Your task to perform on an android device: Open the Play Movies app and select the watchlist tab. Image 0: 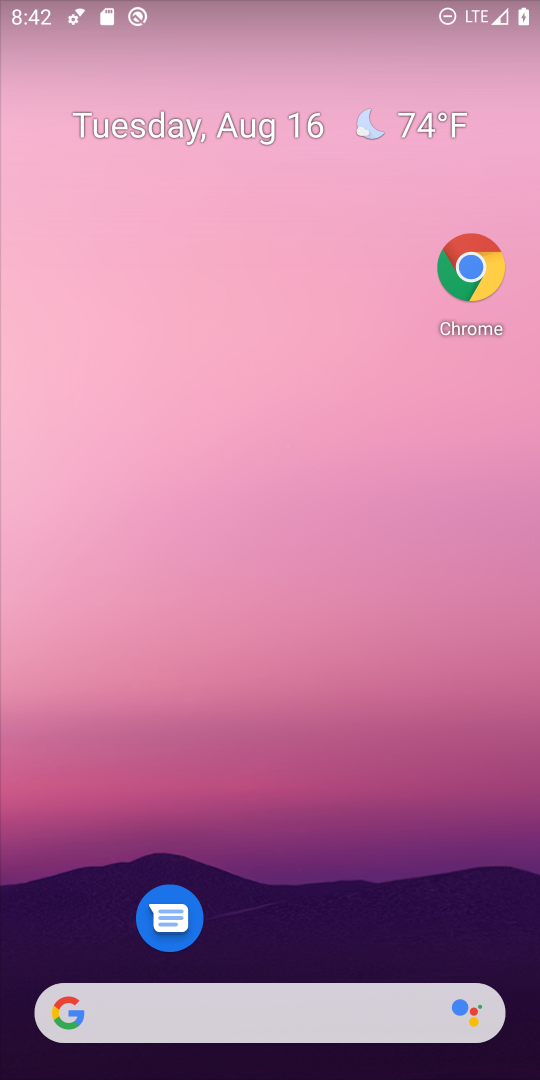
Step 0: drag from (222, 955) to (322, 113)
Your task to perform on an android device: Open the Play Movies app and select the watchlist tab. Image 1: 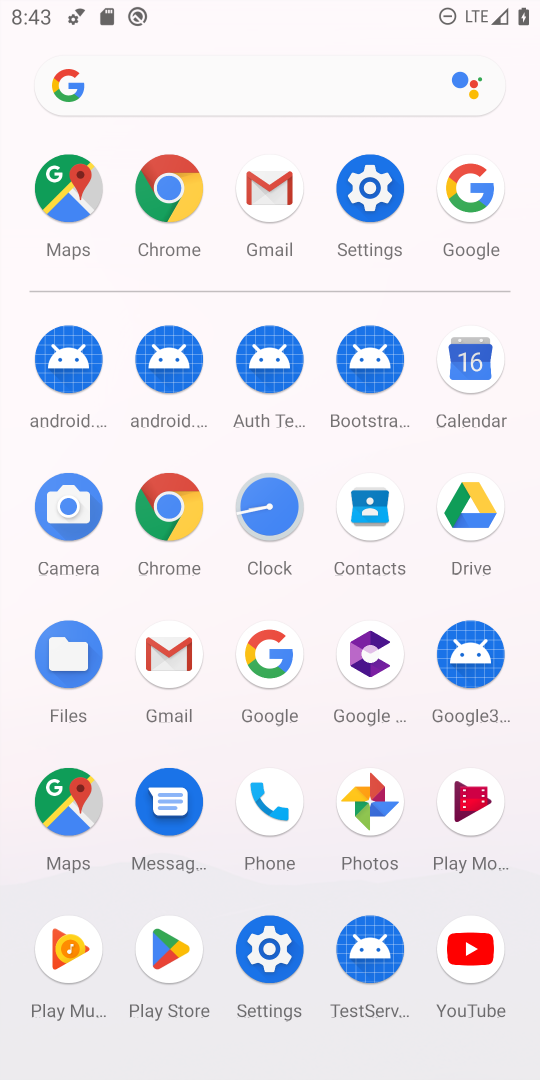
Step 1: click (490, 833)
Your task to perform on an android device: Open the Play Movies app and select the watchlist tab. Image 2: 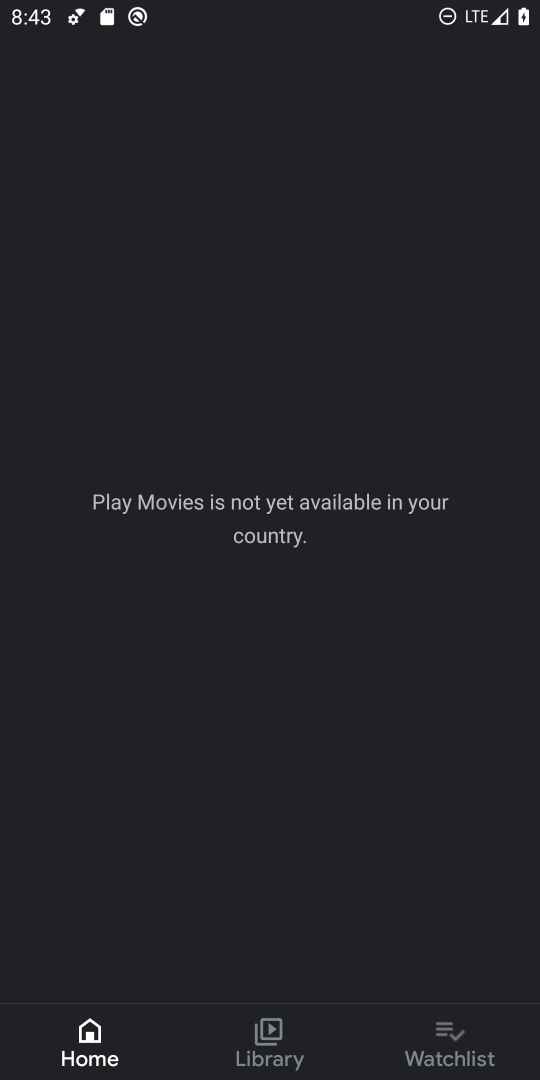
Step 2: click (423, 1048)
Your task to perform on an android device: Open the Play Movies app and select the watchlist tab. Image 3: 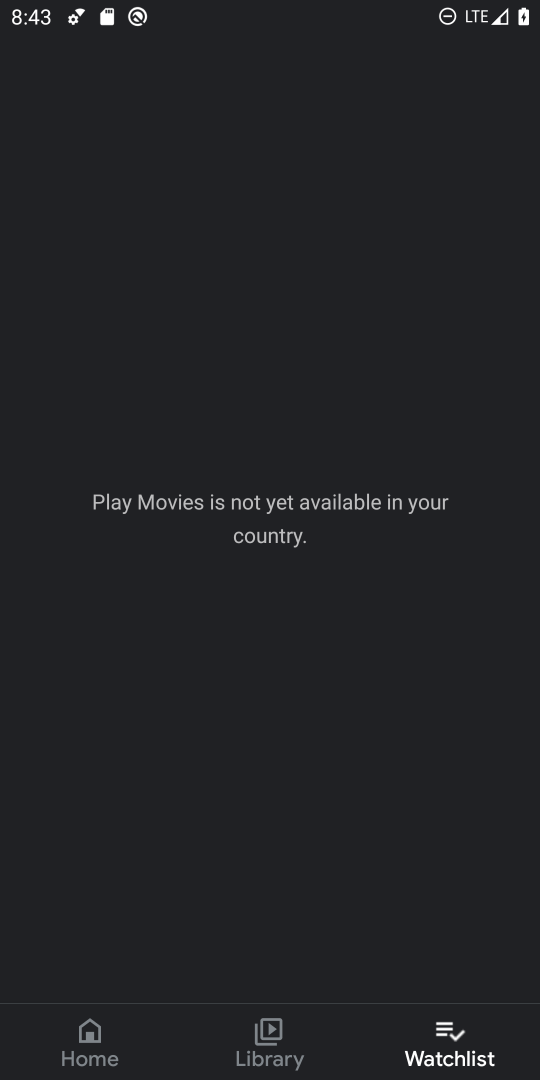
Step 3: task complete